Your task to perform on an android device: Open calendar and show me the second week of next month Image 0: 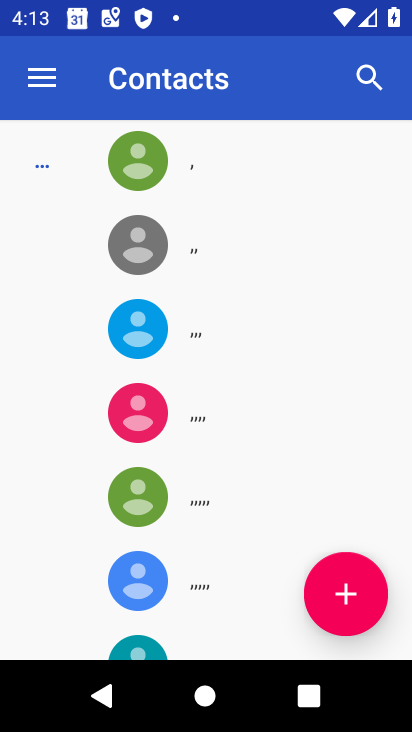
Step 0: press back button
Your task to perform on an android device: Open calendar and show me the second week of next month Image 1: 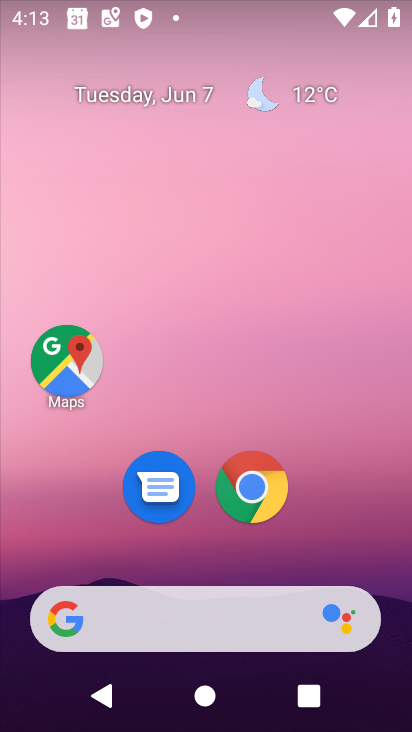
Step 1: drag from (188, 542) to (253, 101)
Your task to perform on an android device: Open calendar and show me the second week of next month Image 2: 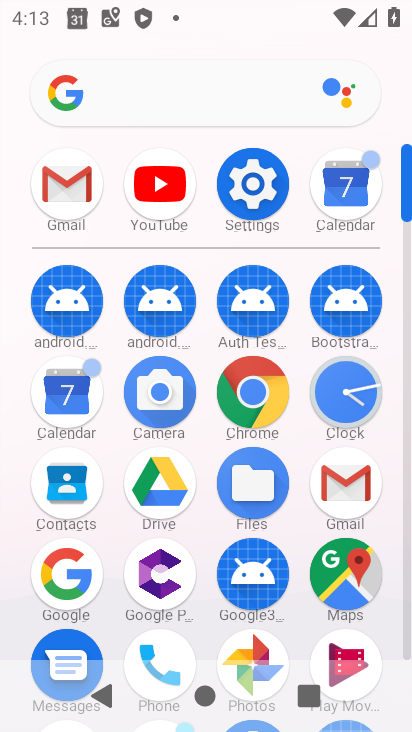
Step 2: click (64, 403)
Your task to perform on an android device: Open calendar and show me the second week of next month Image 3: 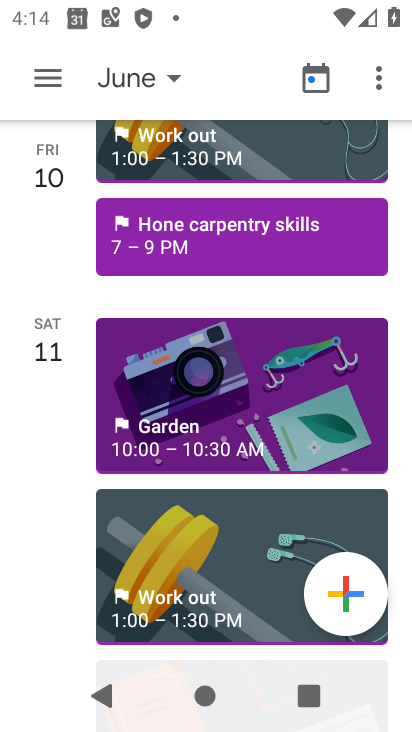
Step 3: click (127, 75)
Your task to perform on an android device: Open calendar and show me the second week of next month Image 4: 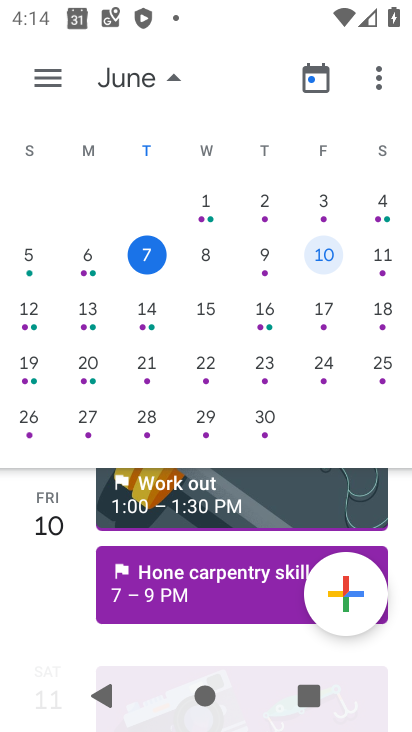
Step 4: drag from (368, 304) to (53, 321)
Your task to perform on an android device: Open calendar and show me the second week of next month Image 5: 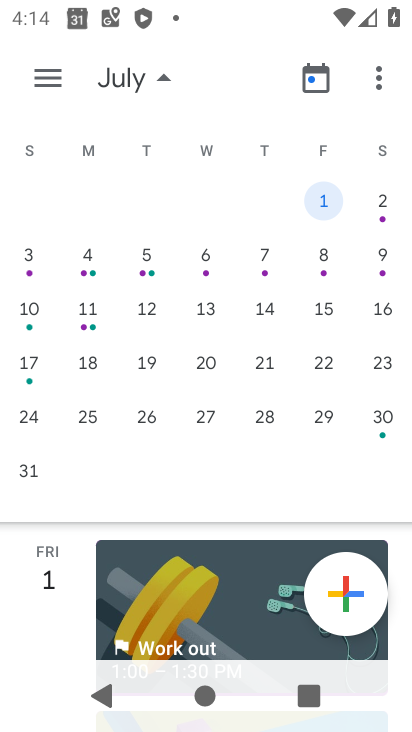
Step 5: click (90, 316)
Your task to perform on an android device: Open calendar and show me the second week of next month Image 6: 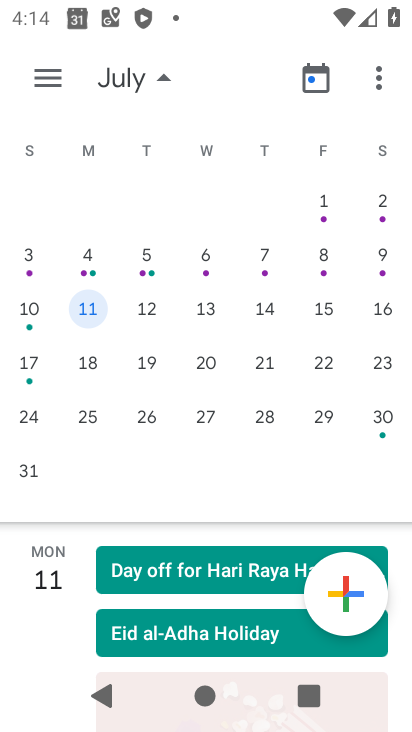
Step 6: task complete